Your task to perform on an android device: Search for "energizer triple a" on bestbuy.com, select the first entry, and add it to the cart. Image 0: 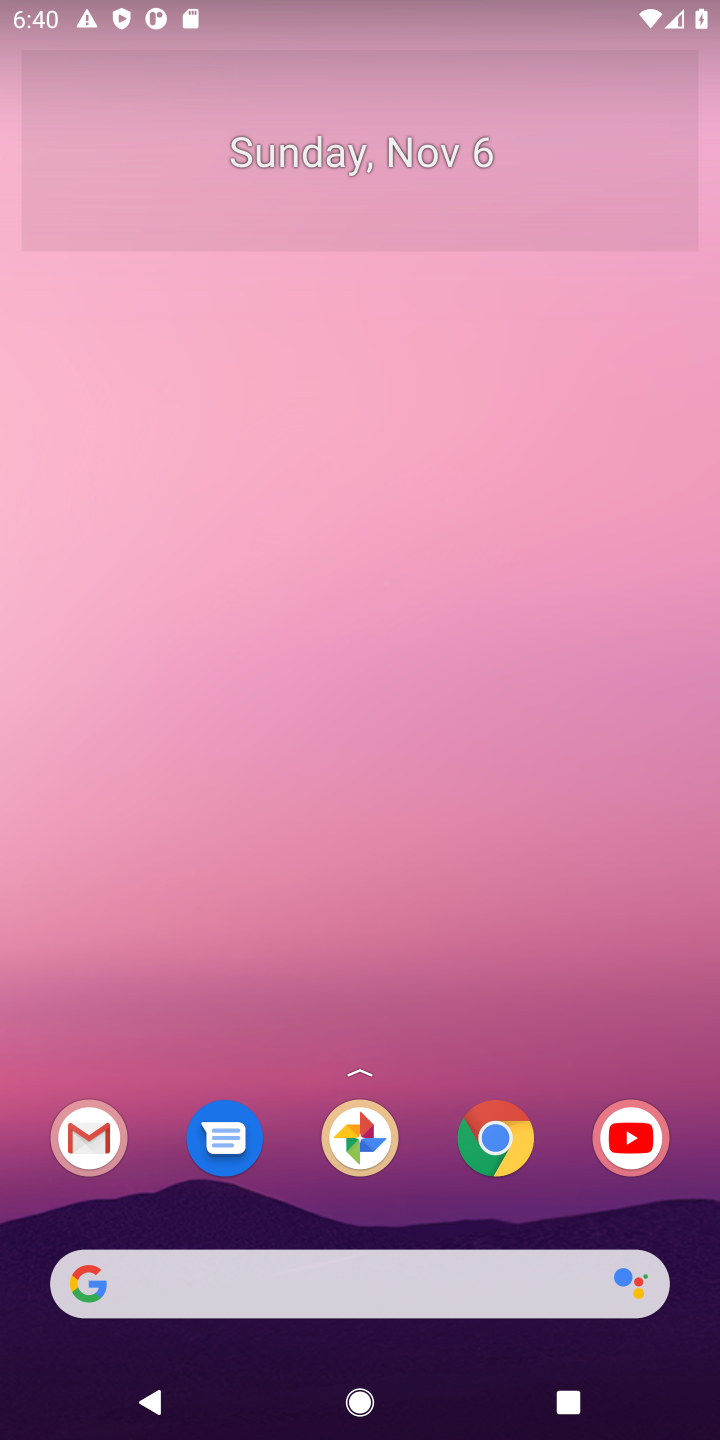
Step 0: click (516, 1148)
Your task to perform on an android device: Search for "energizer triple a" on bestbuy.com, select the first entry, and add it to the cart. Image 1: 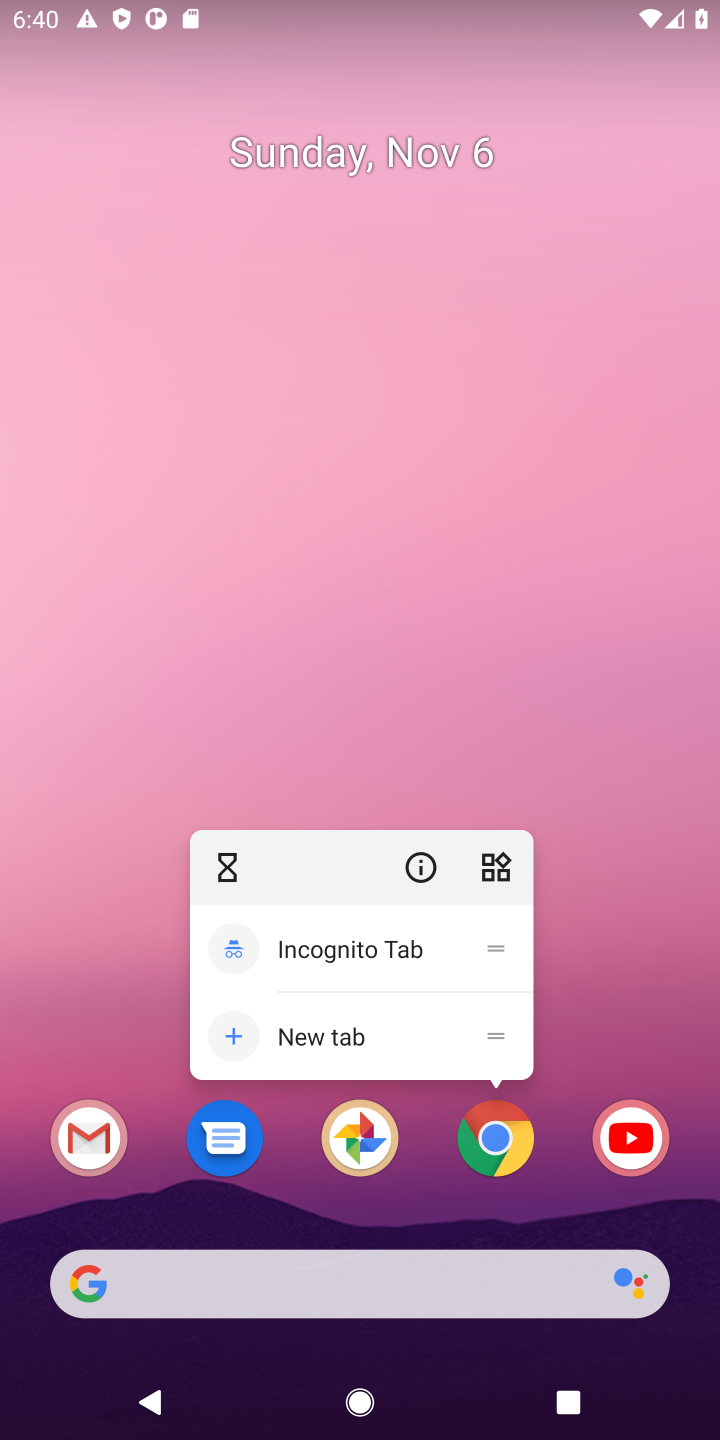
Step 1: click (520, 1114)
Your task to perform on an android device: Search for "energizer triple a" on bestbuy.com, select the first entry, and add it to the cart. Image 2: 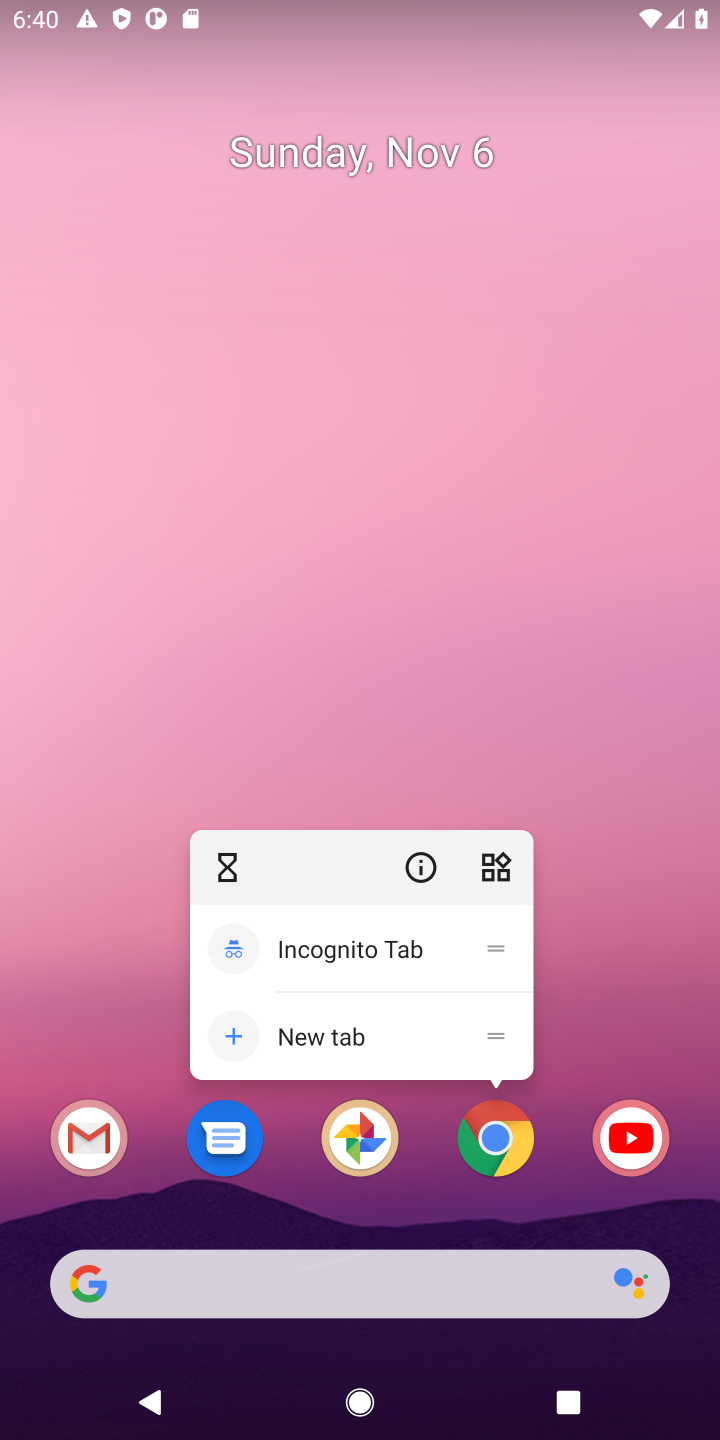
Step 2: click (509, 1141)
Your task to perform on an android device: Search for "energizer triple a" on bestbuy.com, select the first entry, and add it to the cart. Image 3: 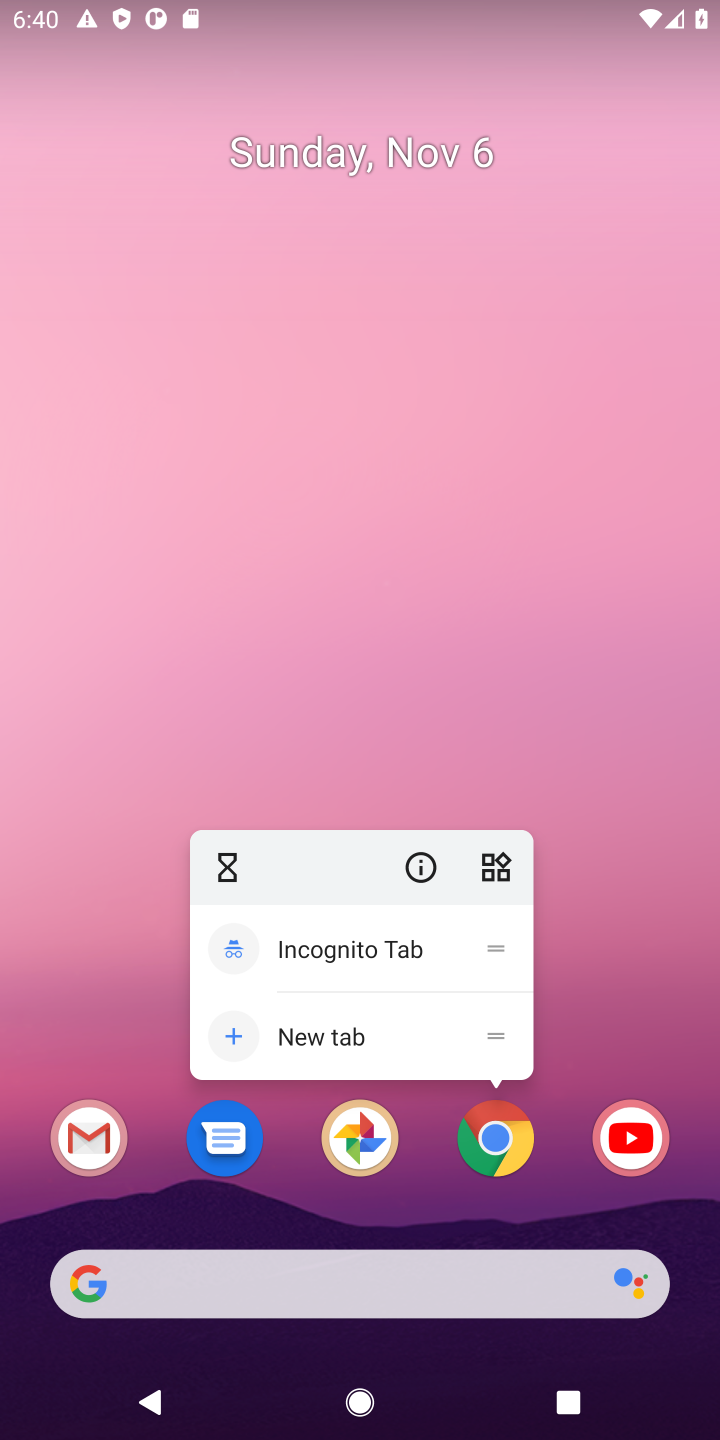
Step 3: click (488, 1145)
Your task to perform on an android device: Search for "energizer triple a" on bestbuy.com, select the first entry, and add it to the cart. Image 4: 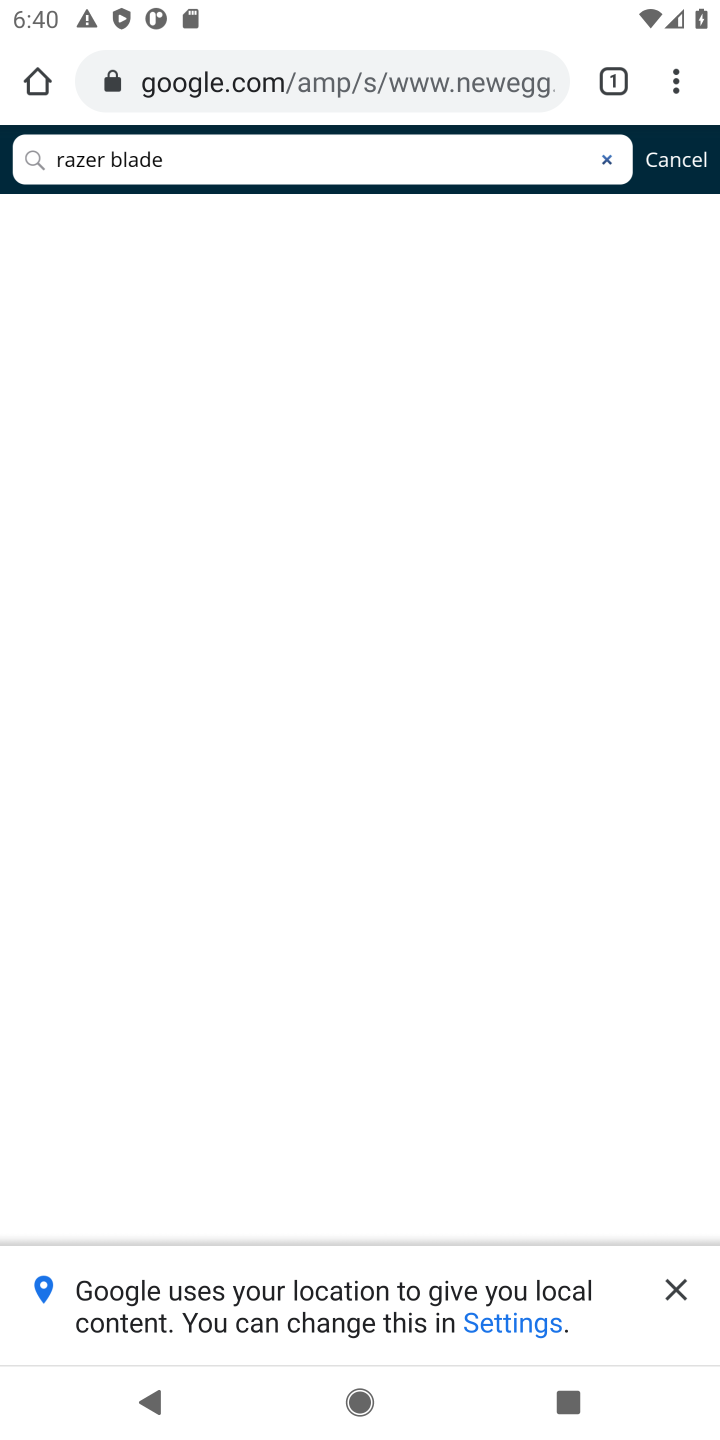
Step 4: click (622, 82)
Your task to perform on an android device: Search for "energizer triple a" on bestbuy.com, select the first entry, and add it to the cart. Image 5: 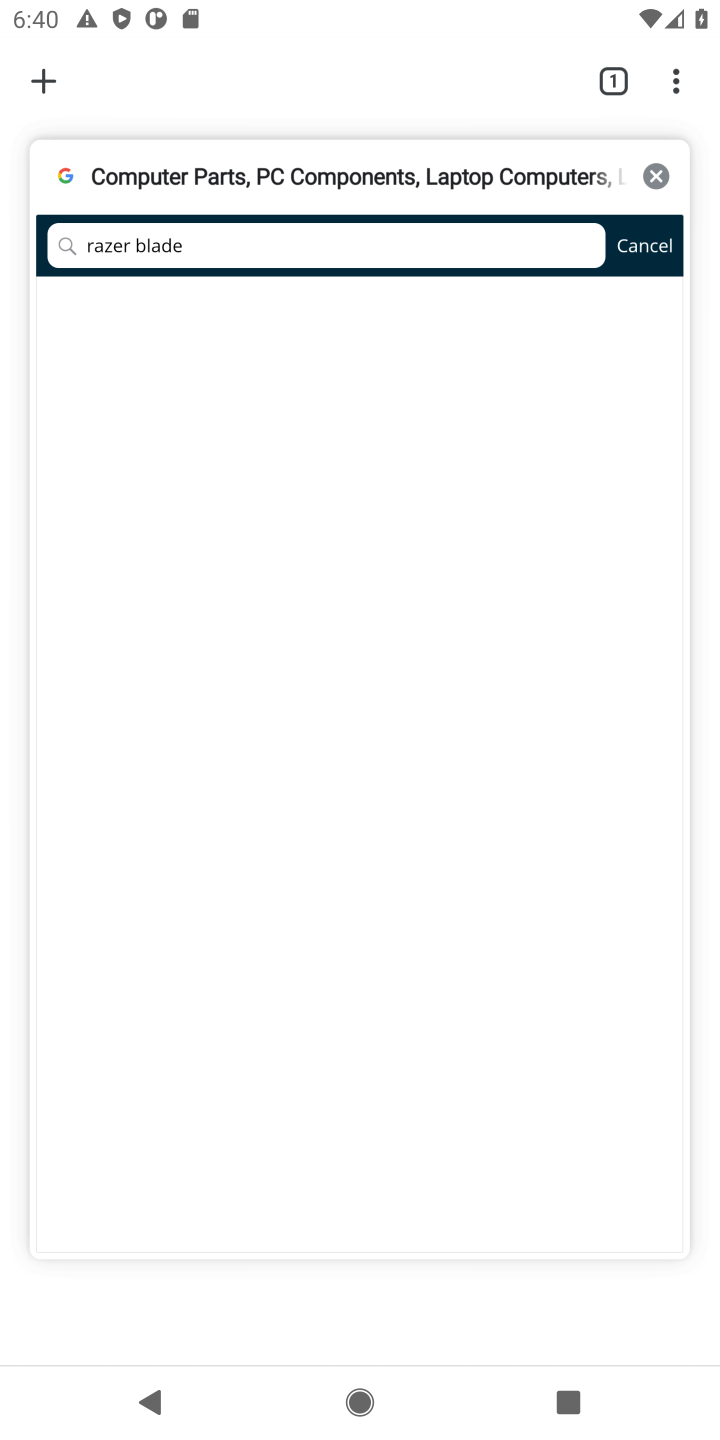
Step 5: click (42, 69)
Your task to perform on an android device: Search for "energizer triple a" on bestbuy.com, select the first entry, and add it to the cart. Image 6: 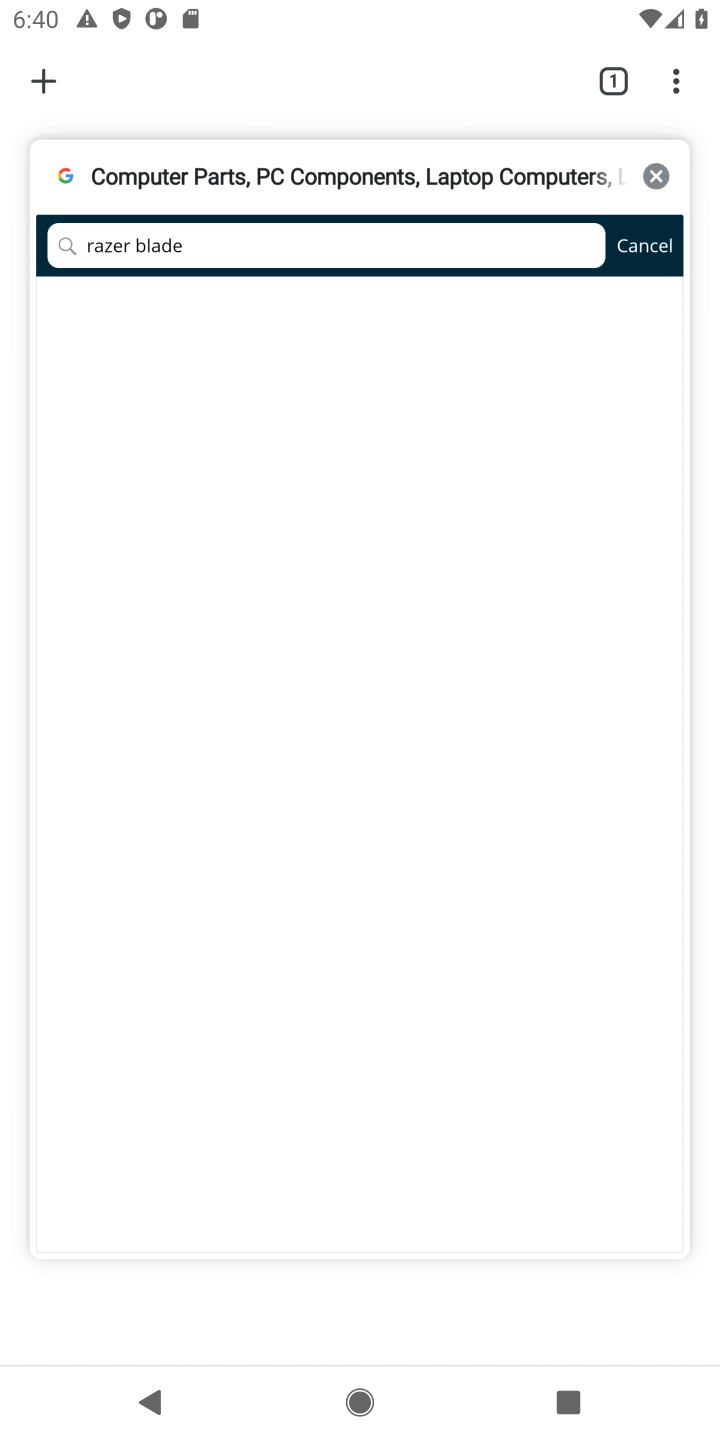
Step 6: click (48, 75)
Your task to perform on an android device: Search for "energizer triple a" on bestbuy.com, select the first entry, and add it to the cart. Image 7: 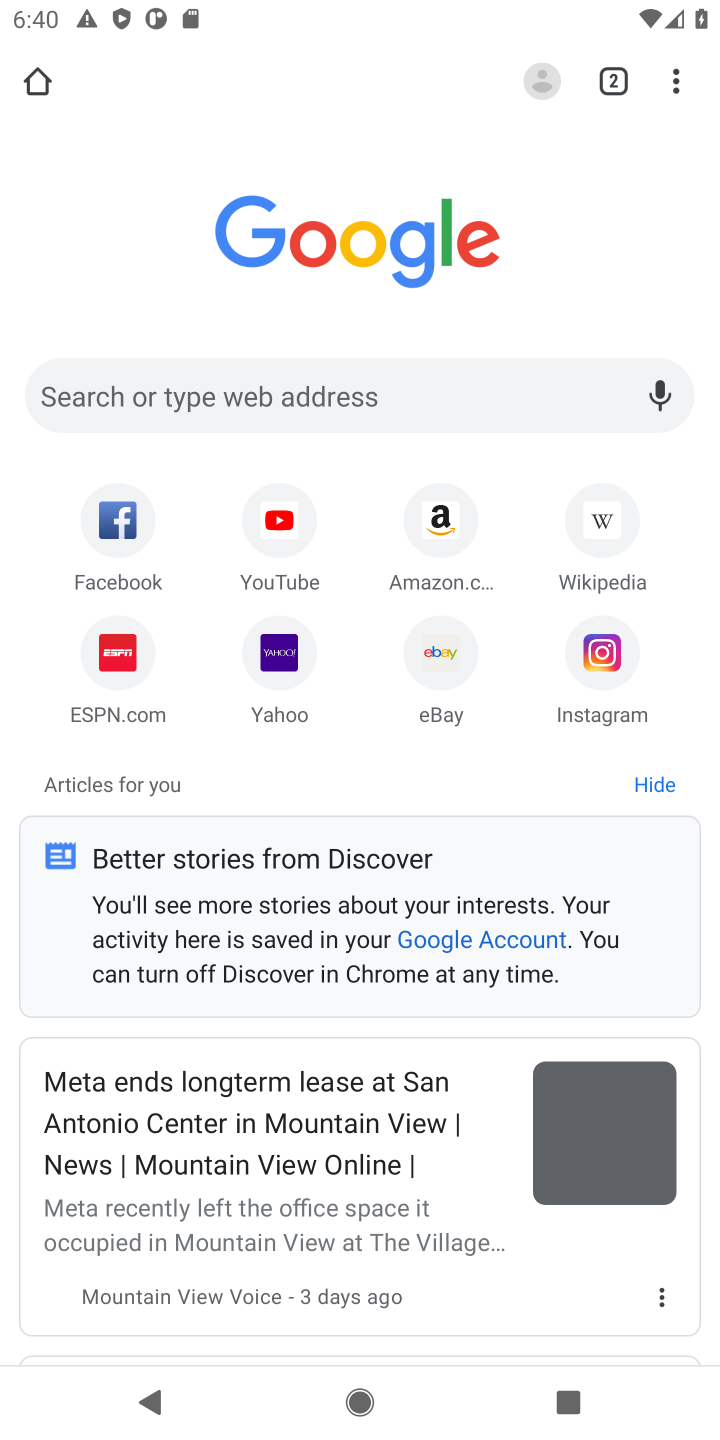
Step 7: click (135, 372)
Your task to perform on an android device: Search for "energizer triple a" on bestbuy.com, select the first entry, and add it to the cart. Image 8: 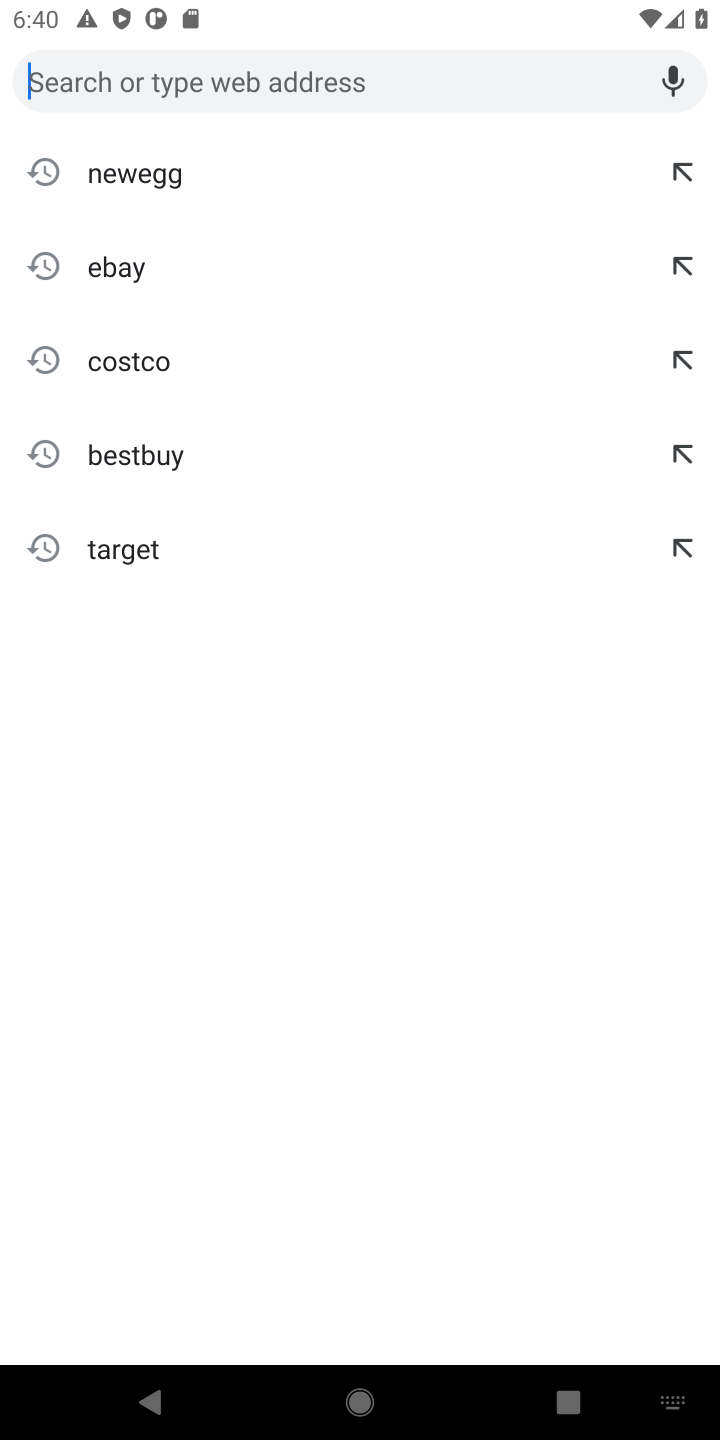
Step 8: click (150, 473)
Your task to perform on an android device: Search for "energizer triple a" on bestbuy.com, select the first entry, and add it to the cart. Image 9: 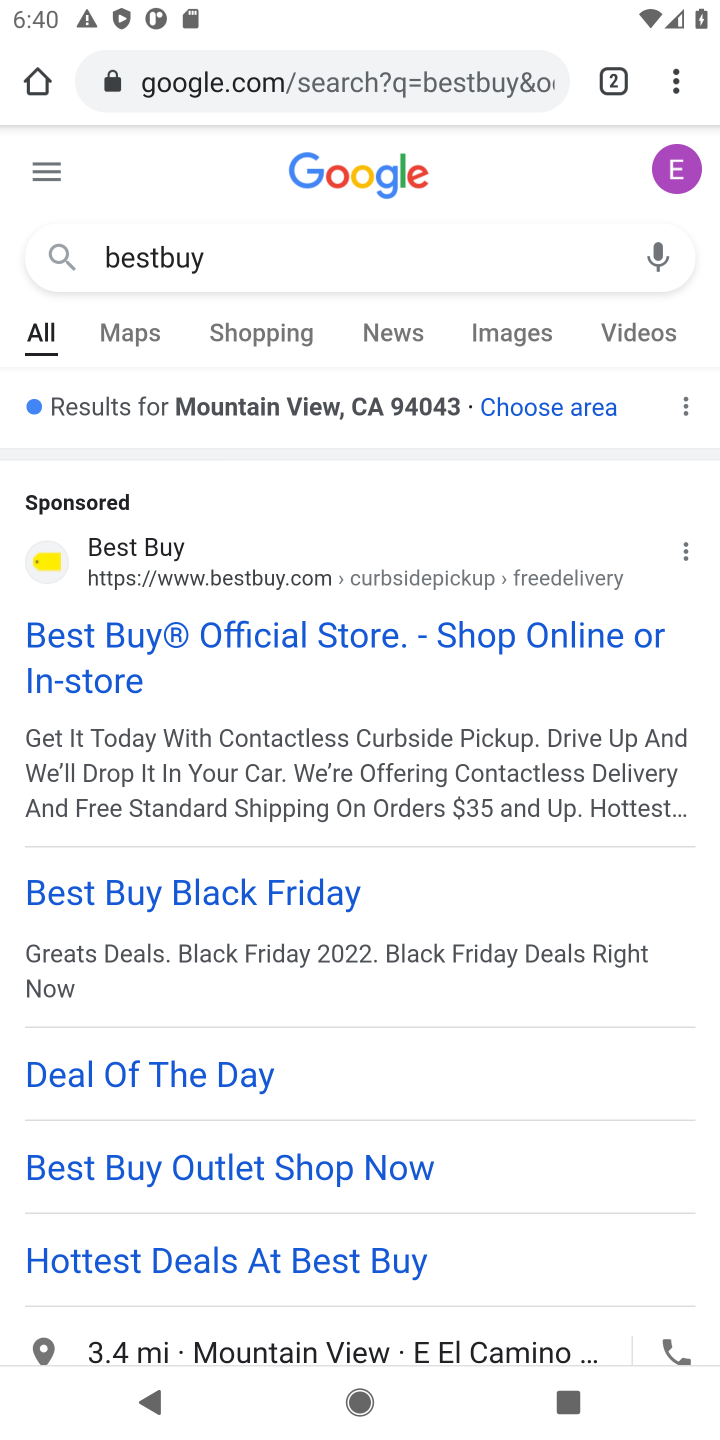
Step 9: click (238, 640)
Your task to perform on an android device: Search for "energizer triple a" on bestbuy.com, select the first entry, and add it to the cart. Image 10: 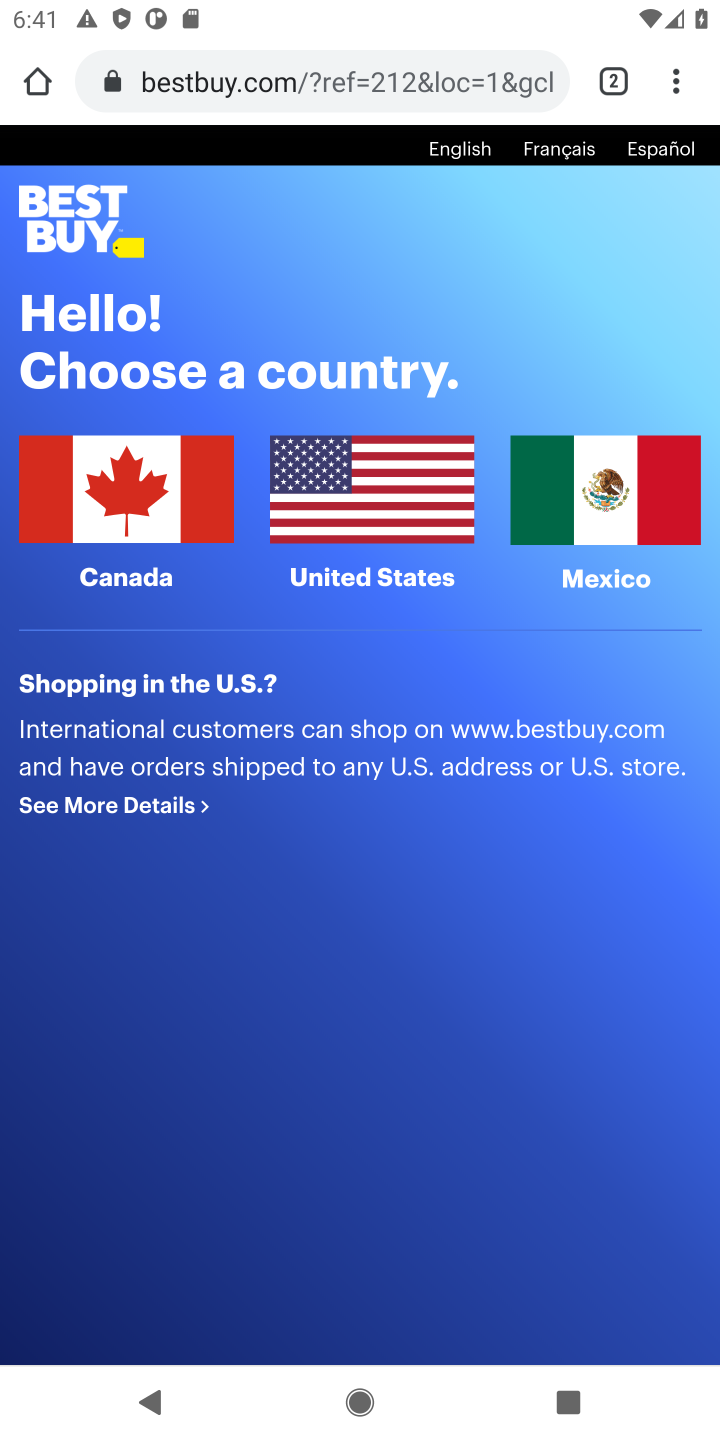
Step 10: click (390, 480)
Your task to perform on an android device: Search for "energizer triple a" on bestbuy.com, select the first entry, and add it to the cart. Image 11: 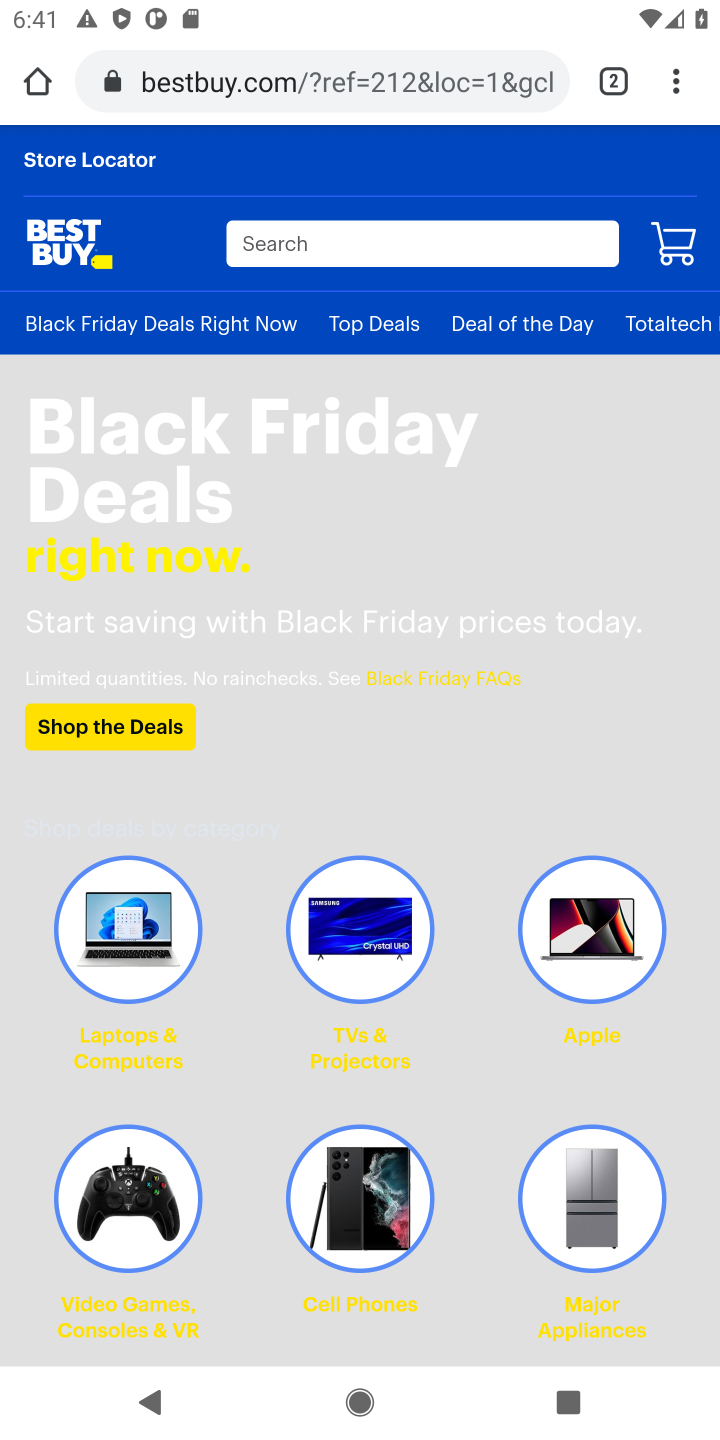
Step 11: click (385, 239)
Your task to perform on an android device: Search for "energizer triple a" on bestbuy.com, select the first entry, and add it to the cart. Image 12: 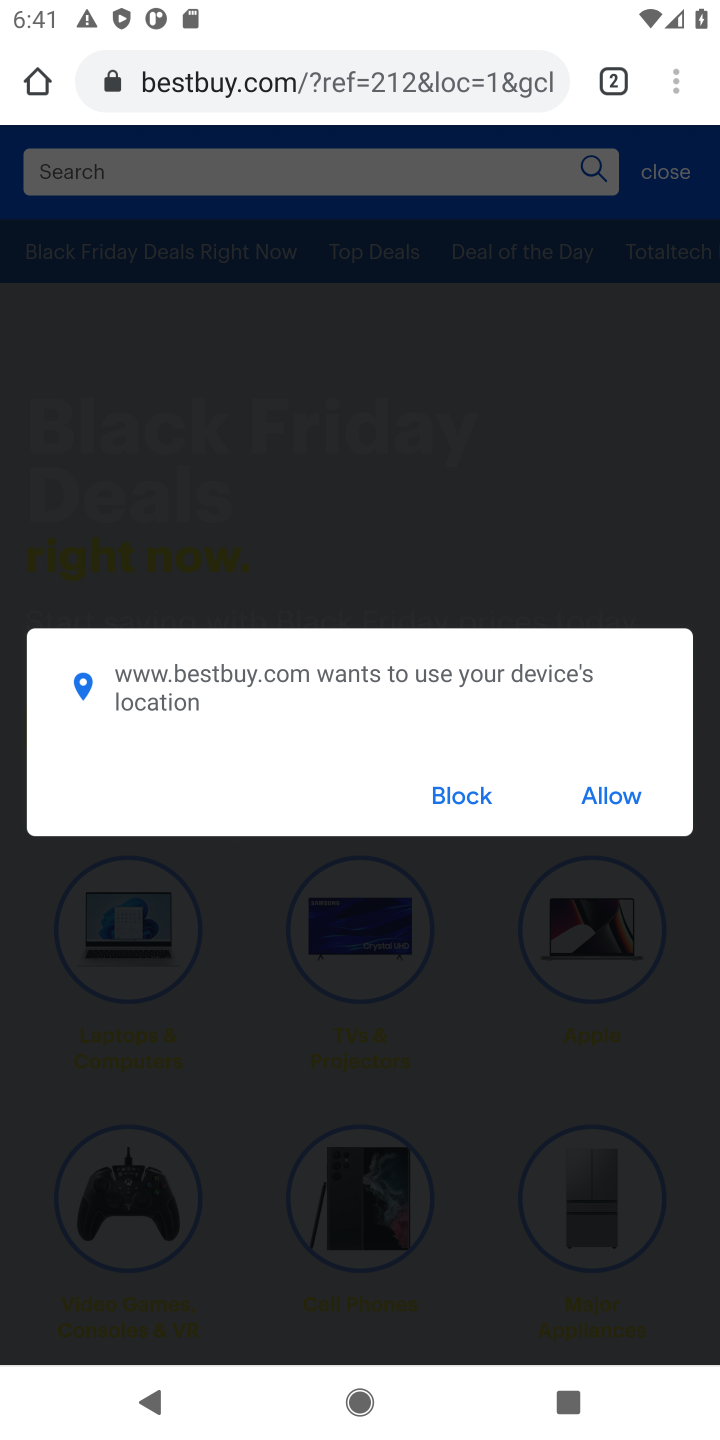
Step 12: click (481, 799)
Your task to perform on an android device: Search for "energizer triple a" on bestbuy.com, select the first entry, and add it to the cart. Image 13: 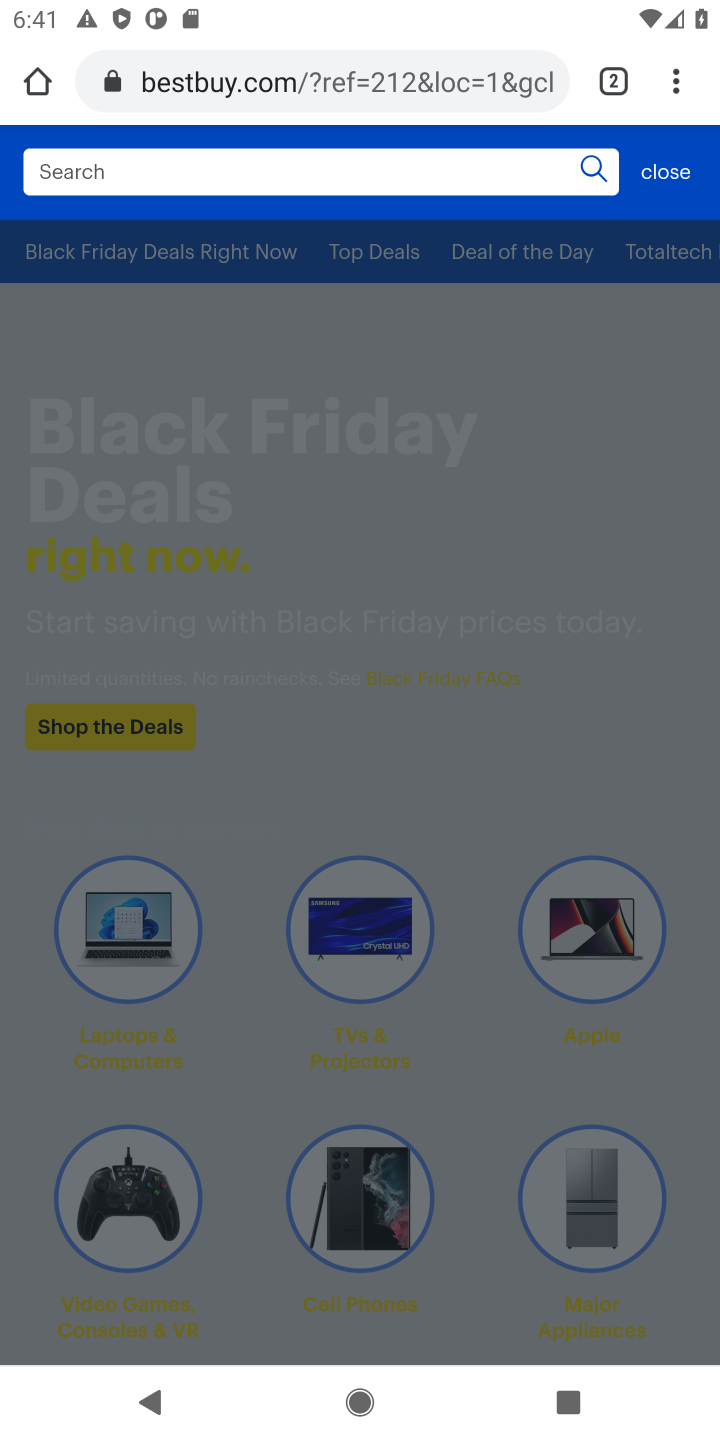
Step 13: click (115, 163)
Your task to perform on an android device: Search for "energizer triple a" on bestbuy.com, select the first entry, and add it to the cart. Image 14: 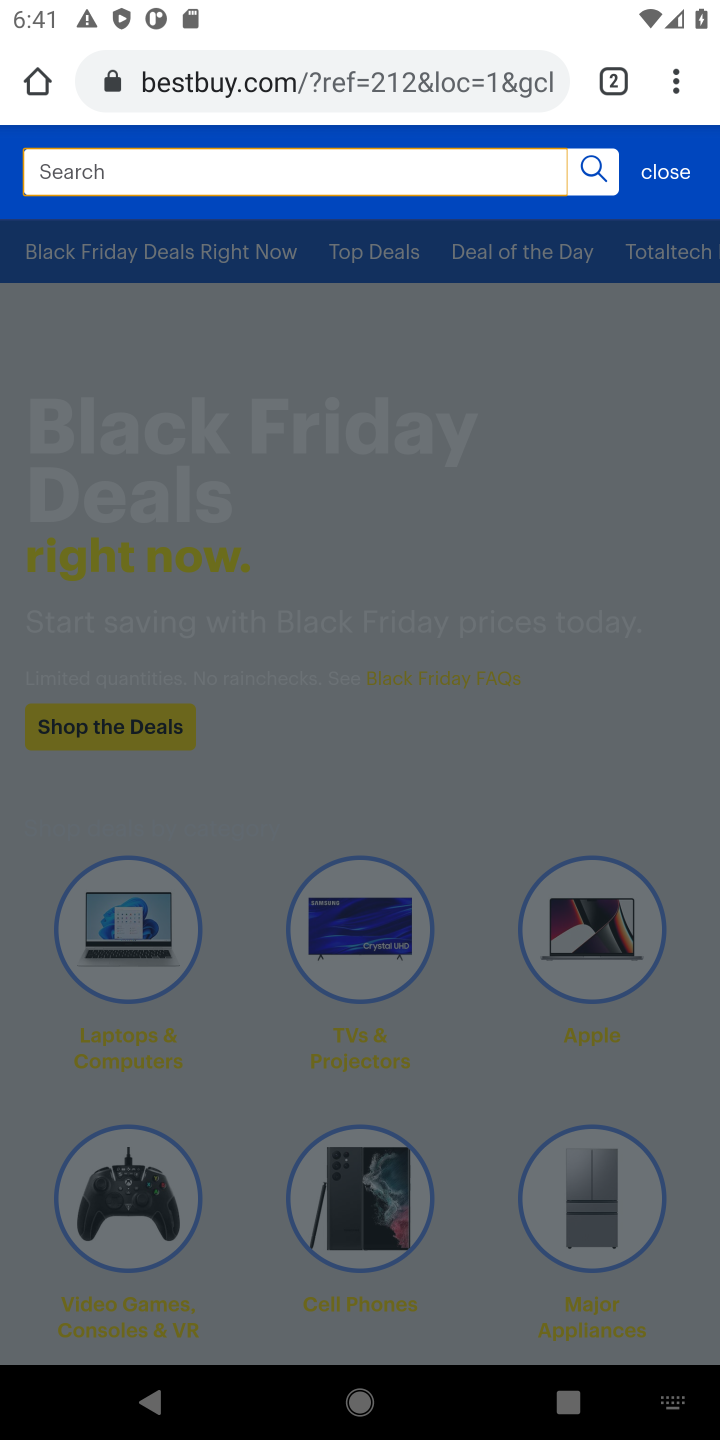
Step 14: type "energizer triple a"
Your task to perform on an android device: Search for "energizer triple a" on bestbuy.com, select the first entry, and add it to the cart. Image 15: 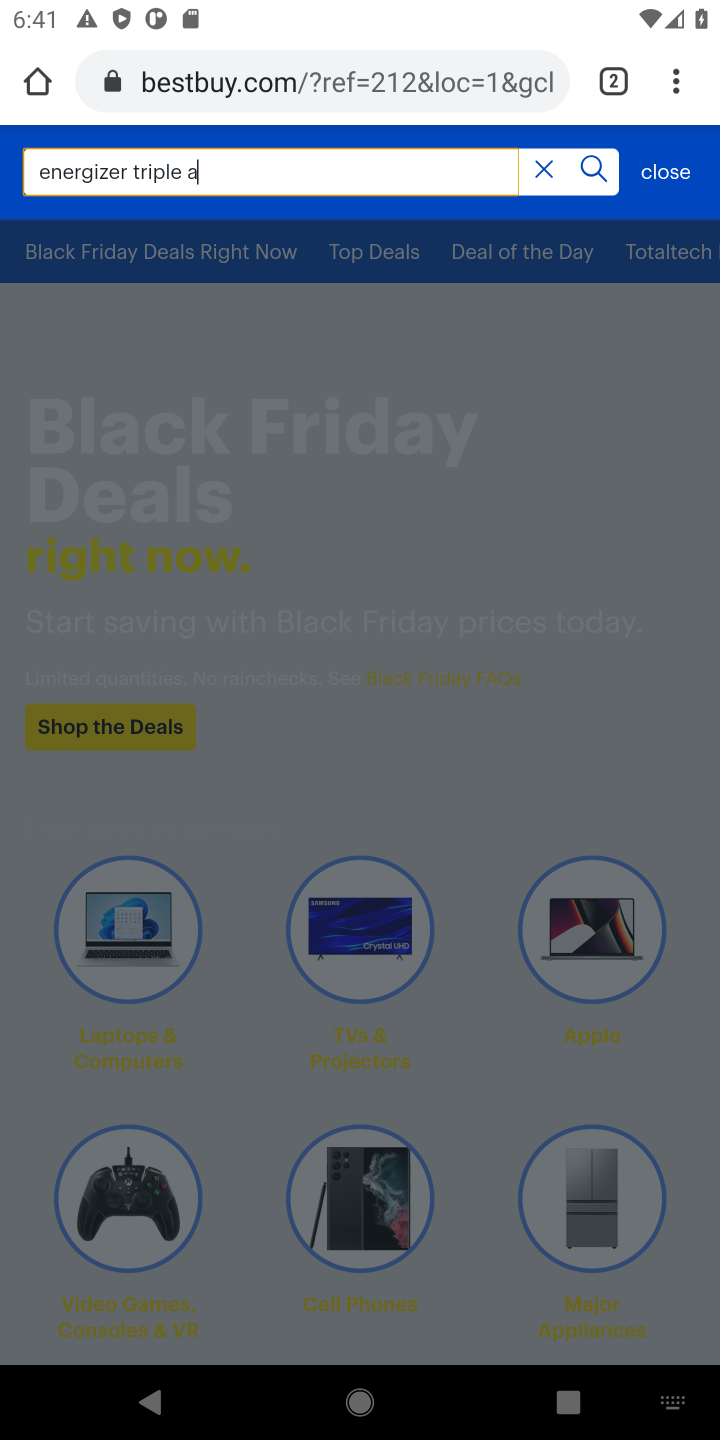
Step 15: click (592, 180)
Your task to perform on an android device: Search for "energizer triple a" on bestbuy.com, select the first entry, and add it to the cart. Image 16: 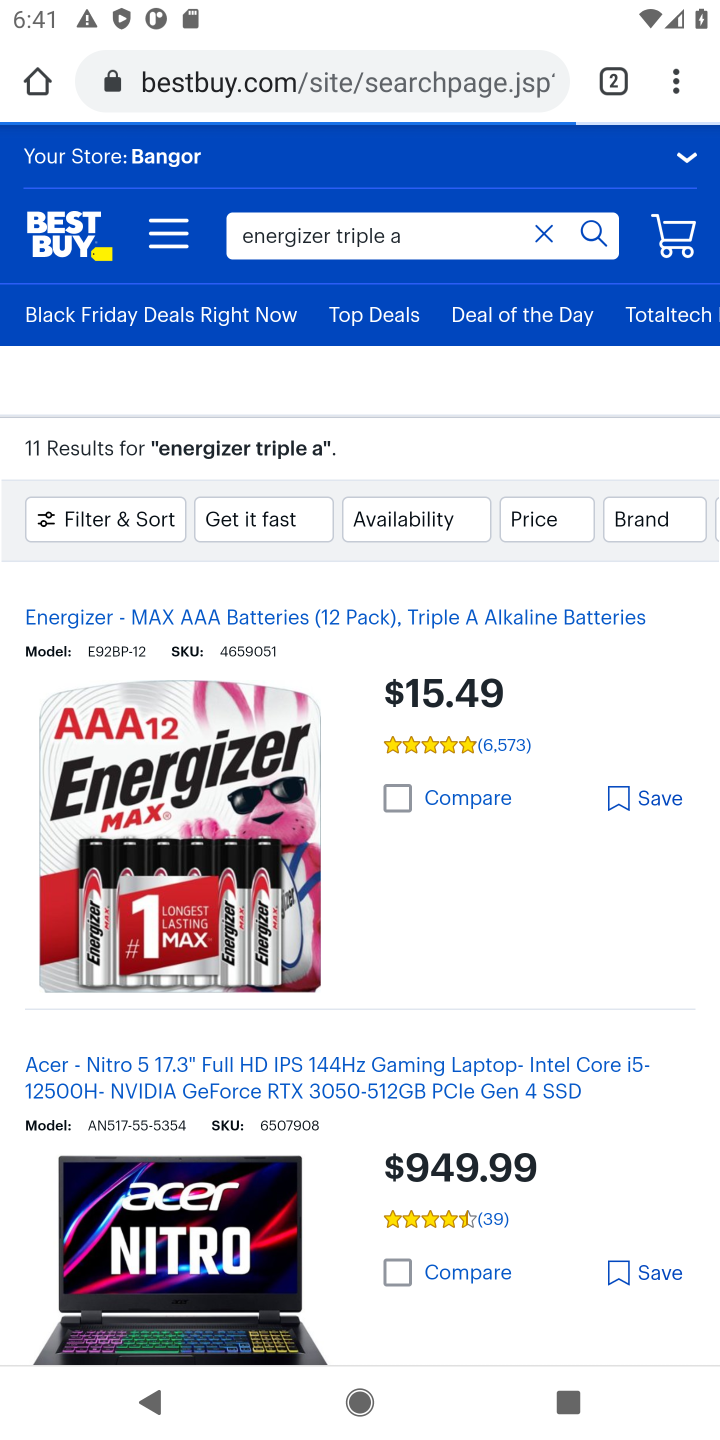
Step 16: click (226, 820)
Your task to perform on an android device: Search for "energizer triple a" on bestbuy.com, select the first entry, and add it to the cart. Image 17: 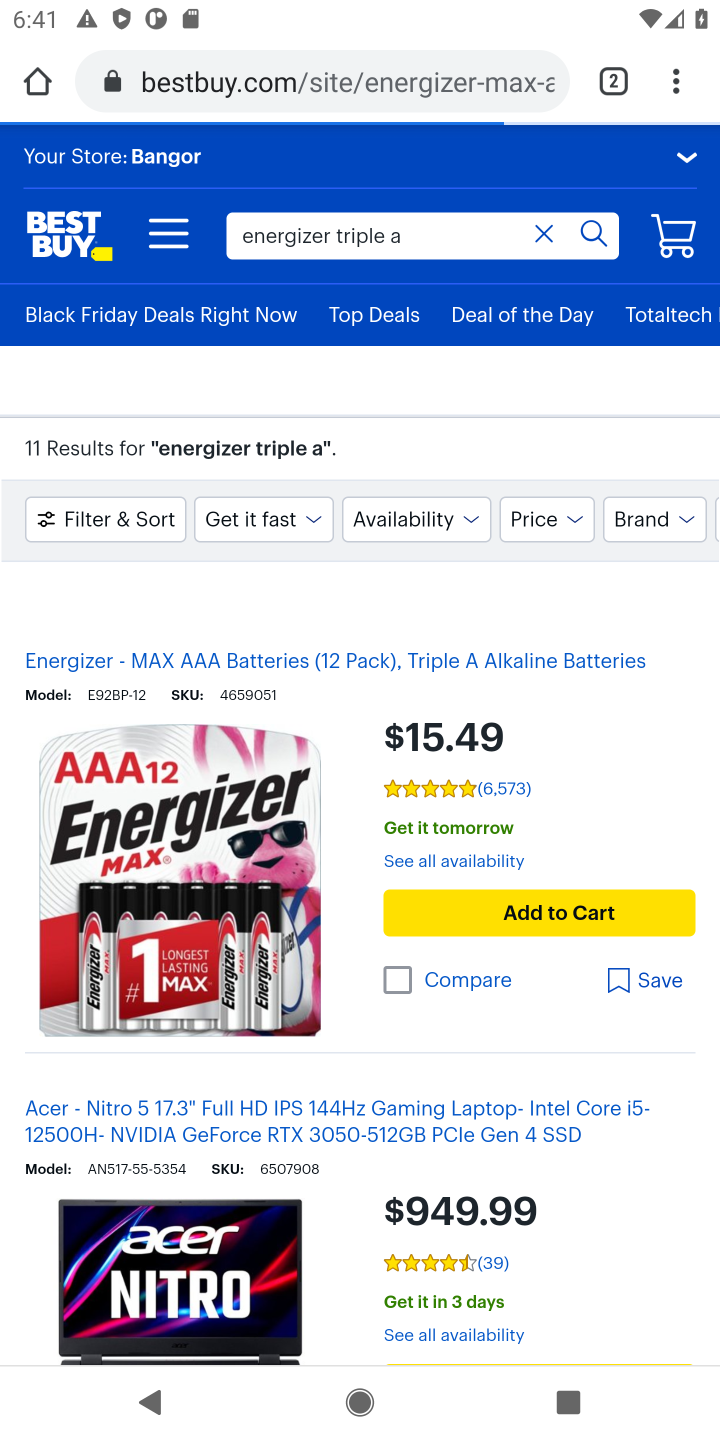
Step 17: click (532, 834)
Your task to perform on an android device: Search for "energizer triple a" on bestbuy.com, select the first entry, and add it to the cart. Image 18: 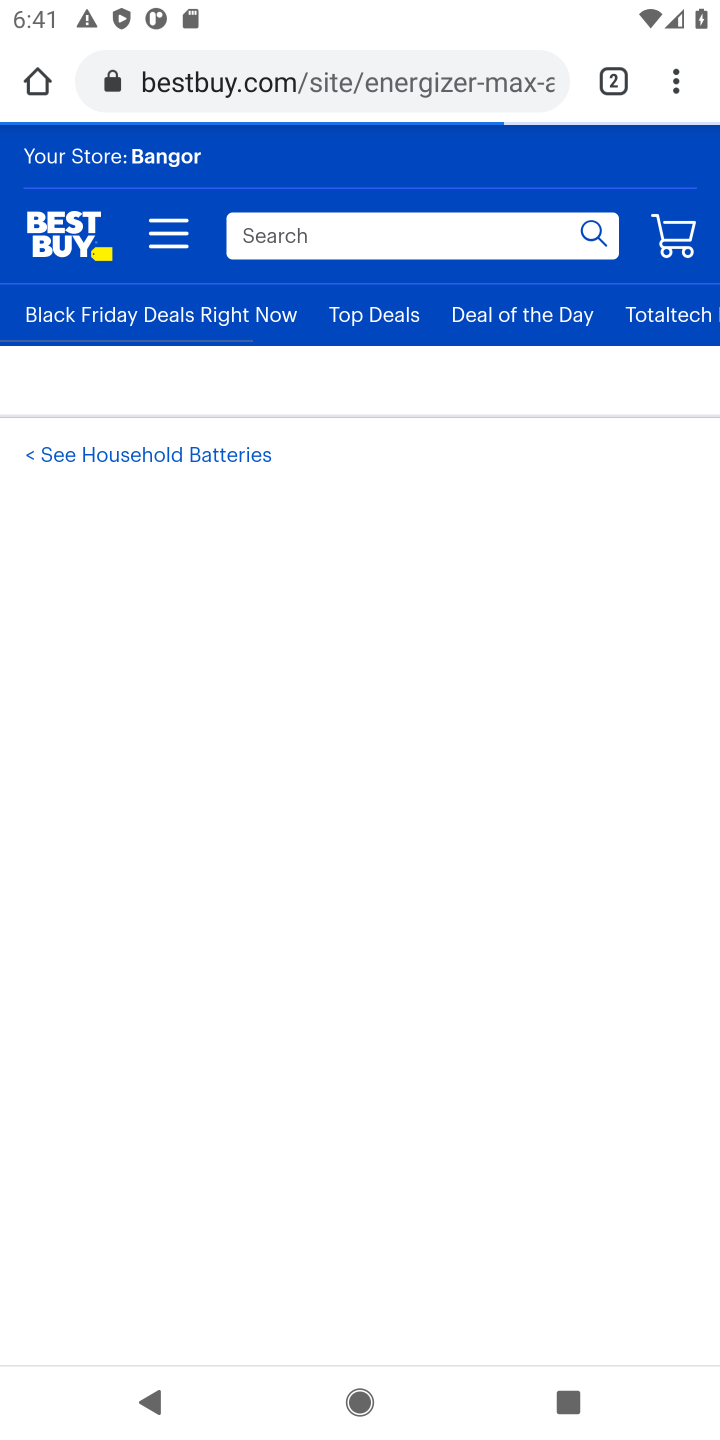
Step 18: click (510, 937)
Your task to perform on an android device: Search for "energizer triple a" on bestbuy.com, select the first entry, and add it to the cart. Image 19: 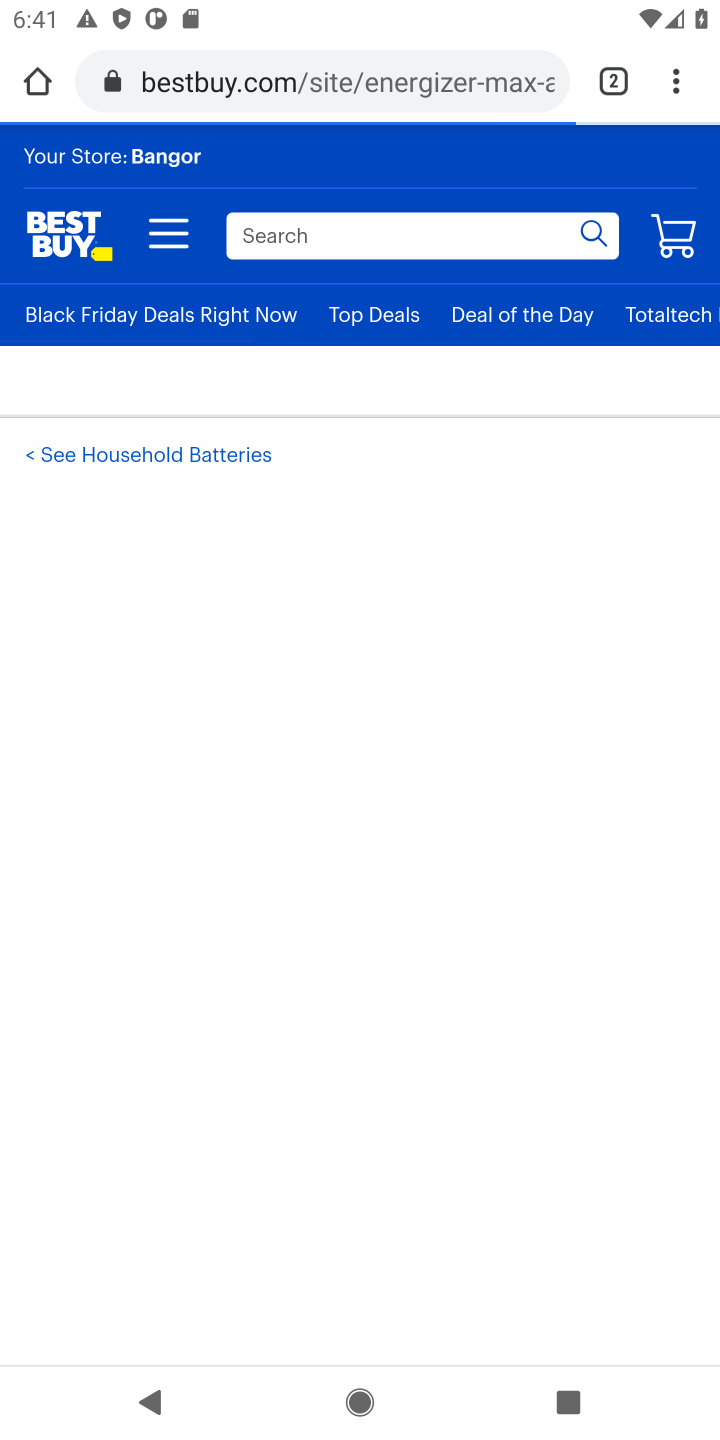
Step 19: click (518, 918)
Your task to perform on an android device: Search for "energizer triple a" on bestbuy.com, select the first entry, and add it to the cart. Image 20: 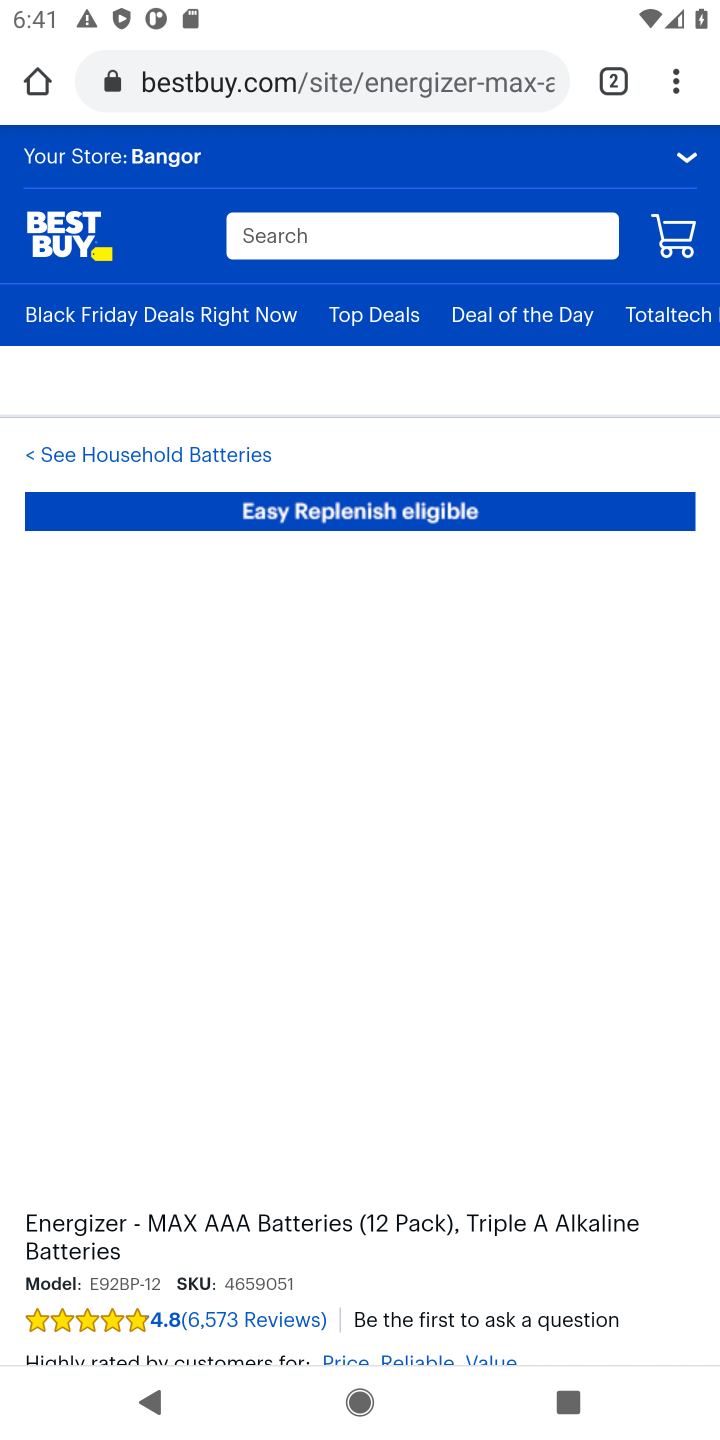
Step 20: drag from (361, 1237) to (446, 702)
Your task to perform on an android device: Search for "energizer triple a" on bestbuy.com, select the first entry, and add it to the cart. Image 21: 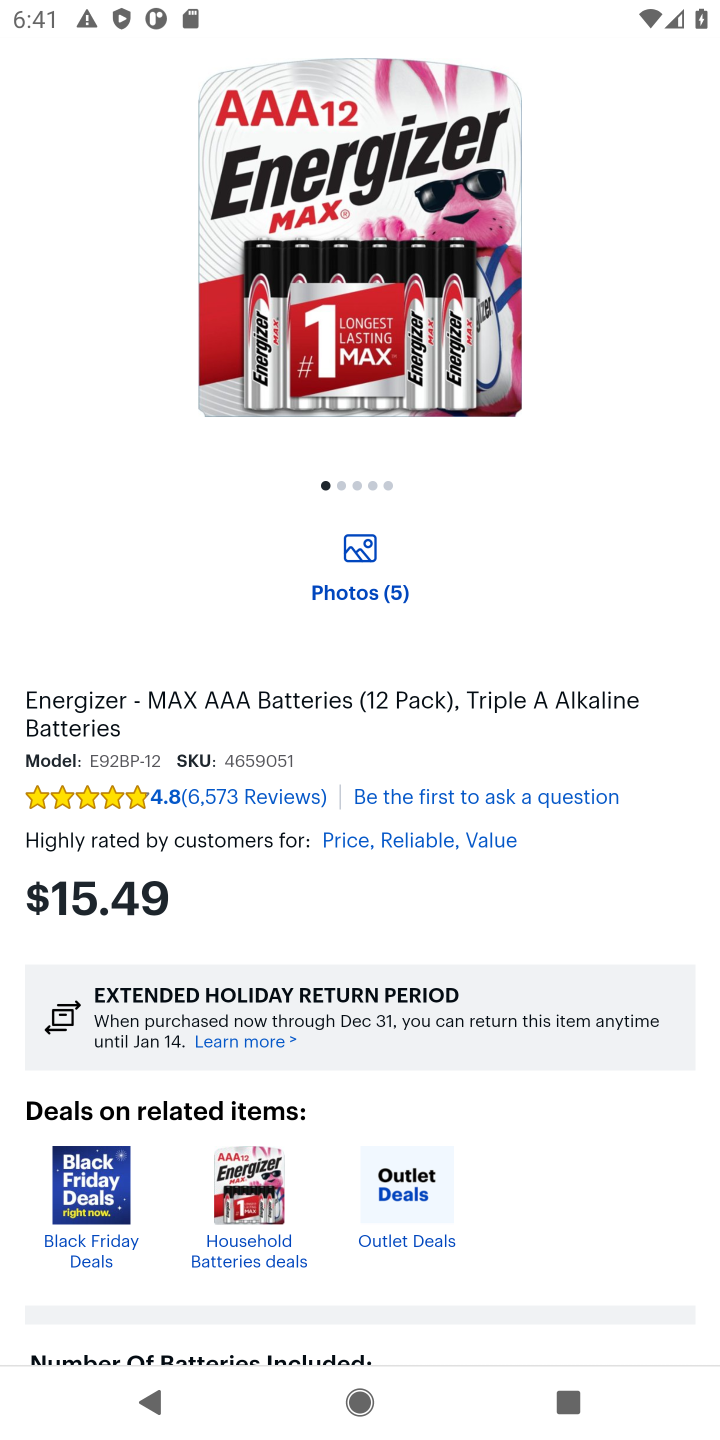
Step 21: drag from (371, 1225) to (501, 583)
Your task to perform on an android device: Search for "energizer triple a" on bestbuy.com, select the first entry, and add it to the cart. Image 22: 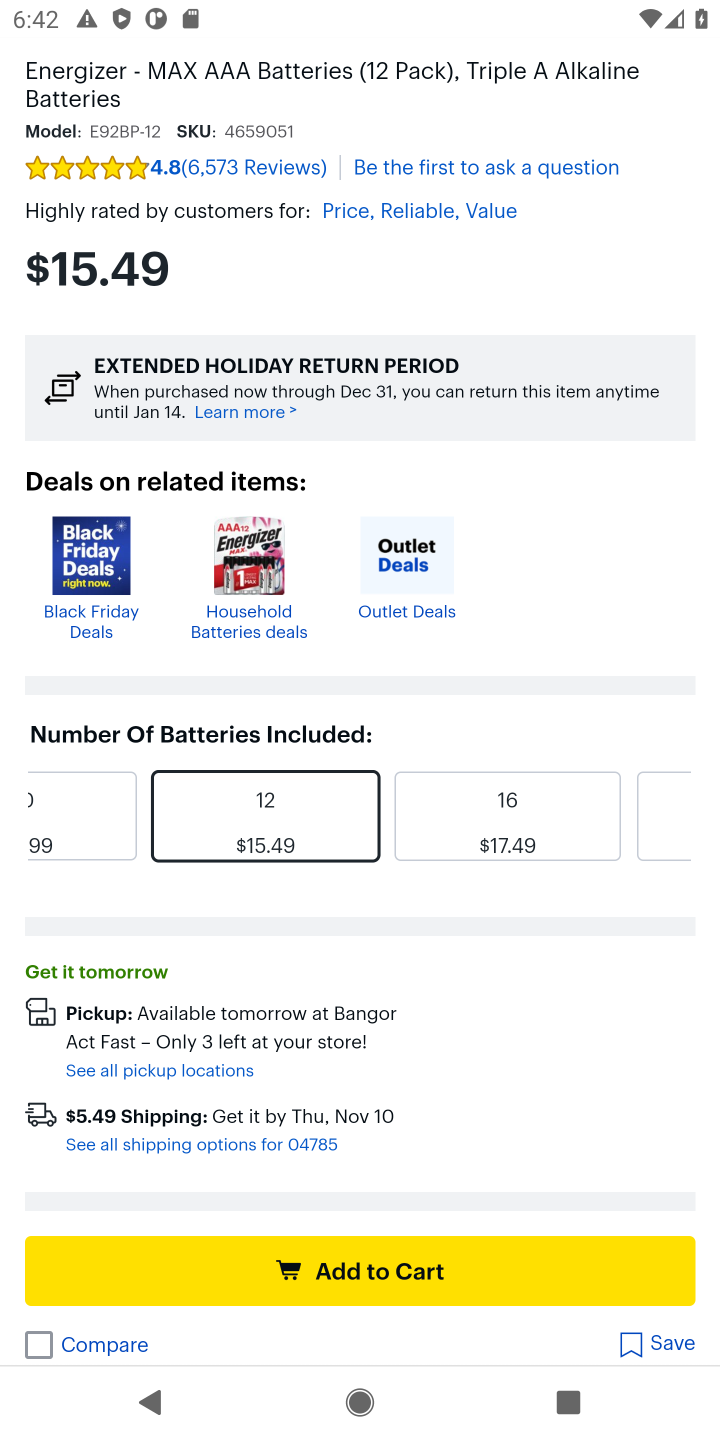
Step 22: click (360, 1270)
Your task to perform on an android device: Search for "energizer triple a" on bestbuy.com, select the first entry, and add it to the cart. Image 23: 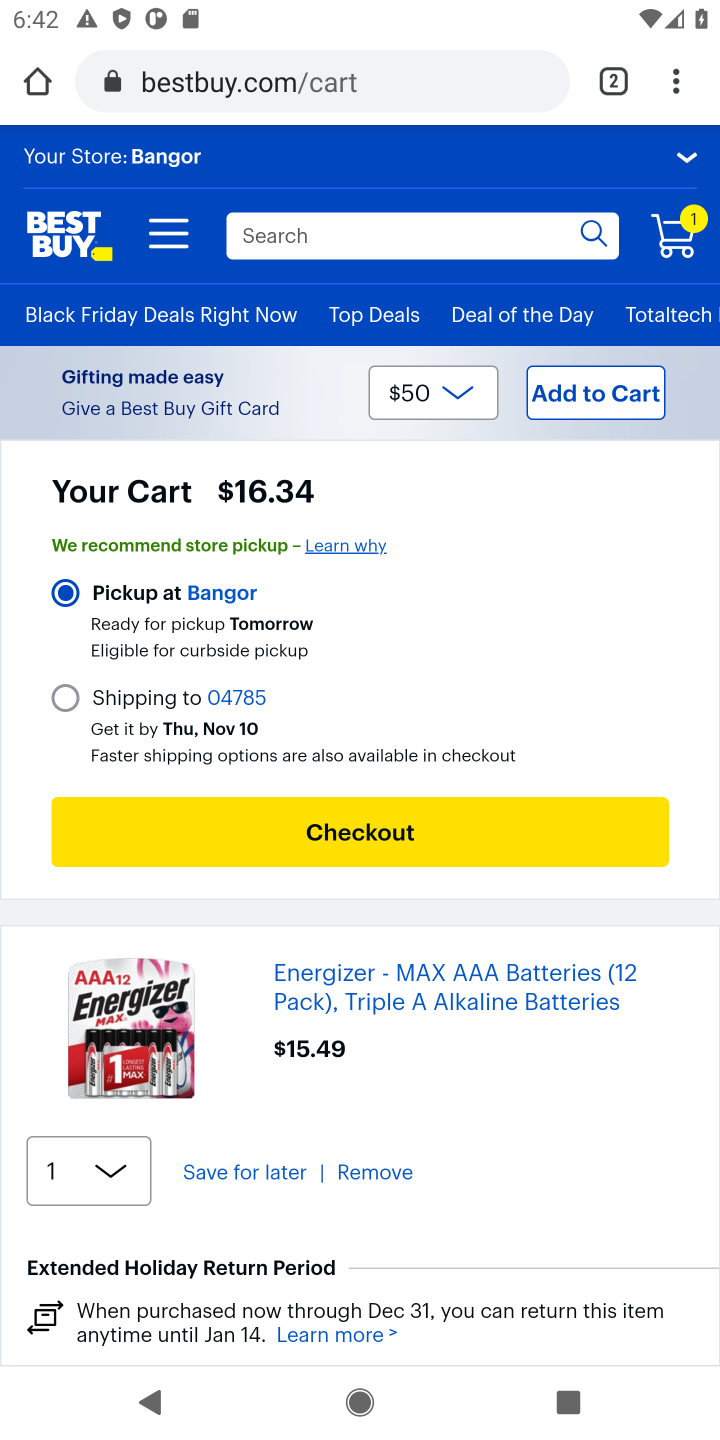
Step 23: task complete